Your task to perform on an android device: change notification settings in the gmail app Image 0: 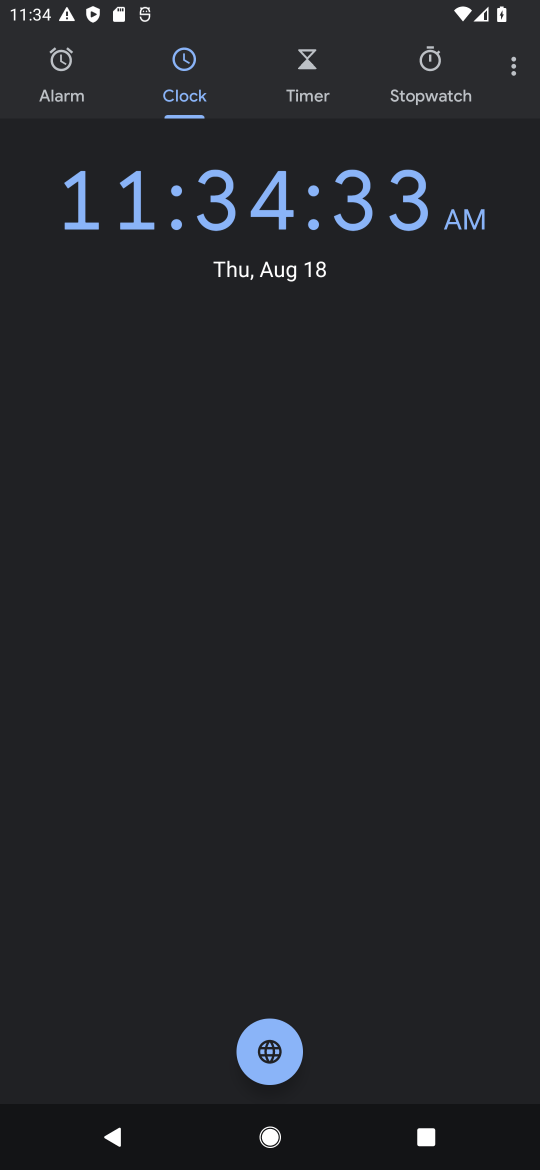
Step 0: press home button
Your task to perform on an android device: change notification settings in the gmail app Image 1: 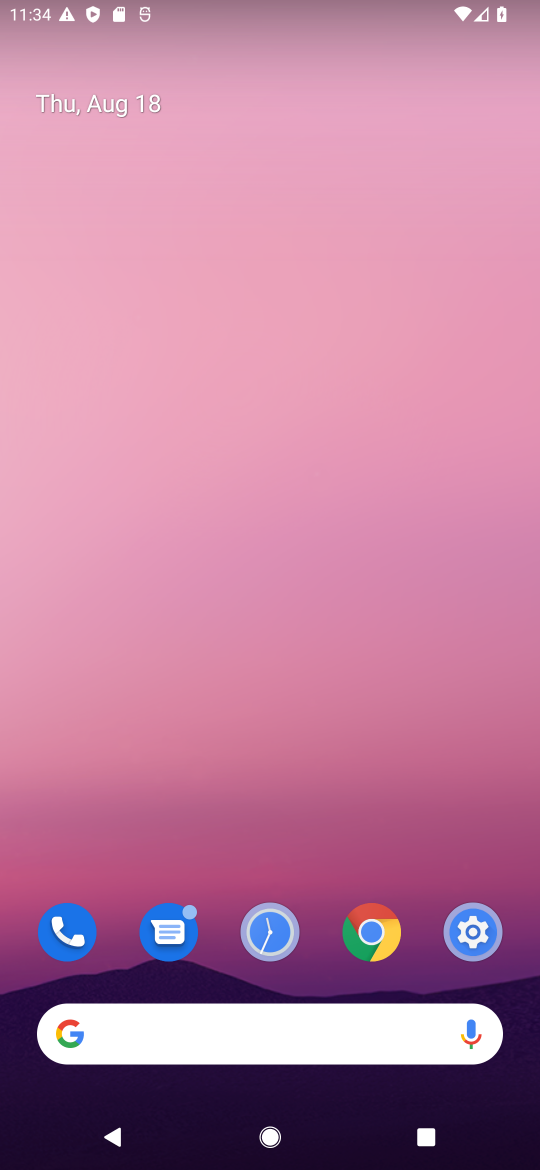
Step 1: drag from (193, 1095) to (166, 309)
Your task to perform on an android device: change notification settings in the gmail app Image 2: 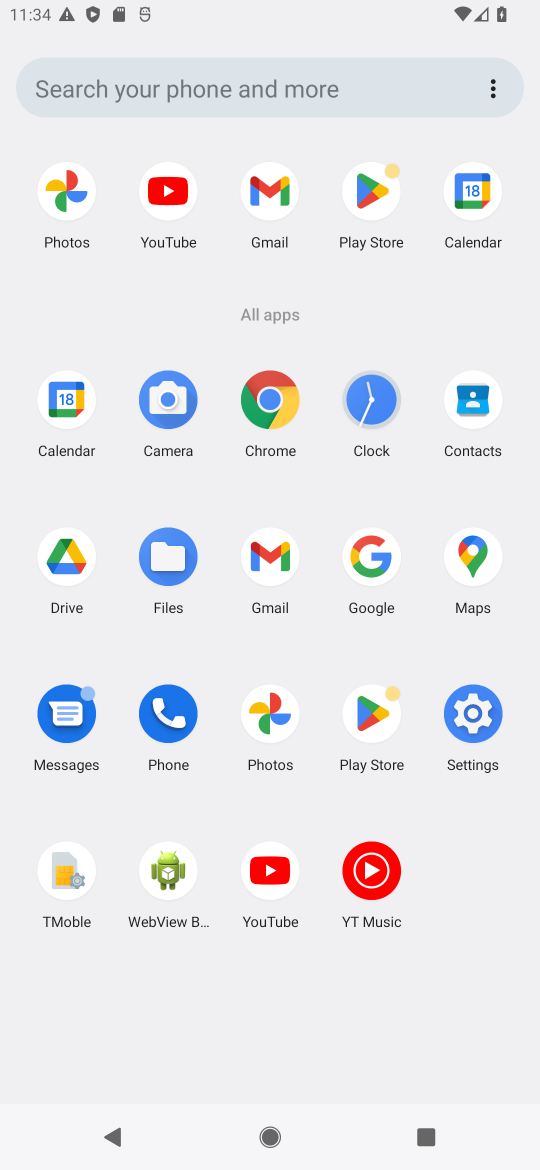
Step 2: click (258, 193)
Your task to perform on an android device: change notification settings in the gmail app Image 3: 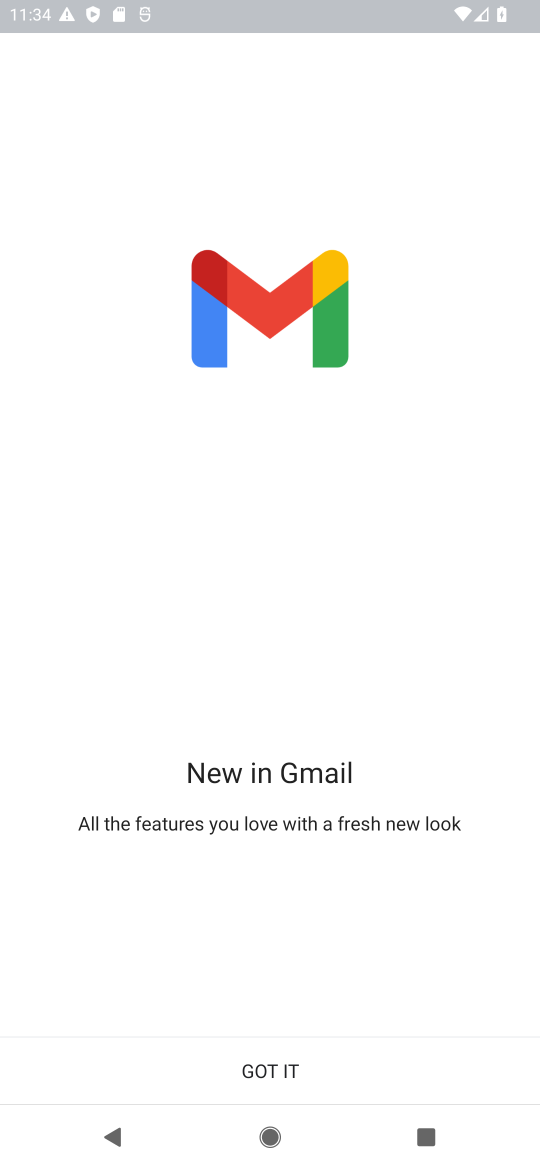
Step 3: click (291, 1082)
Your task to perform on an android device: change notification settings in the gmail app Image 4: 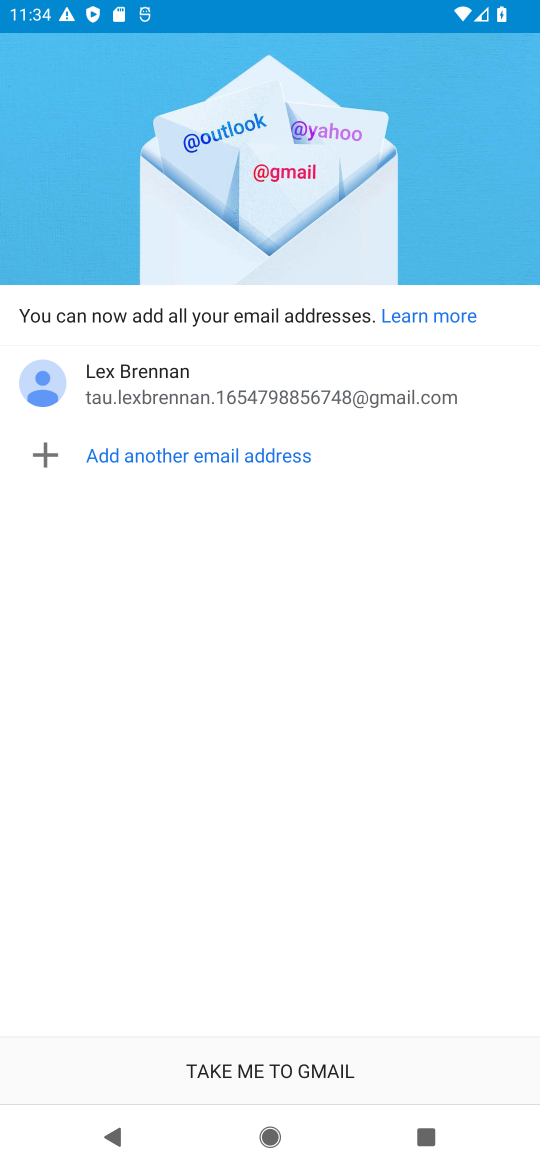
Step 4: click (257, 1062)
Your task to perform on an android device: change notification settings in the gmail app Image 5: 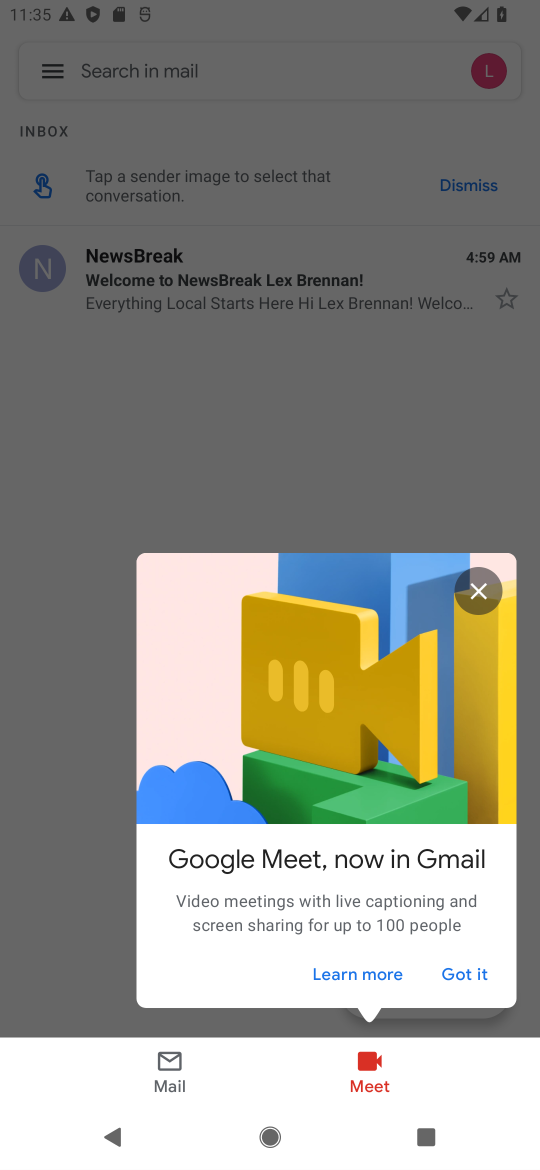
Step 5: click (472, 600)
Your task to perform on an android device: change notification settings in the gmail app Image 6: 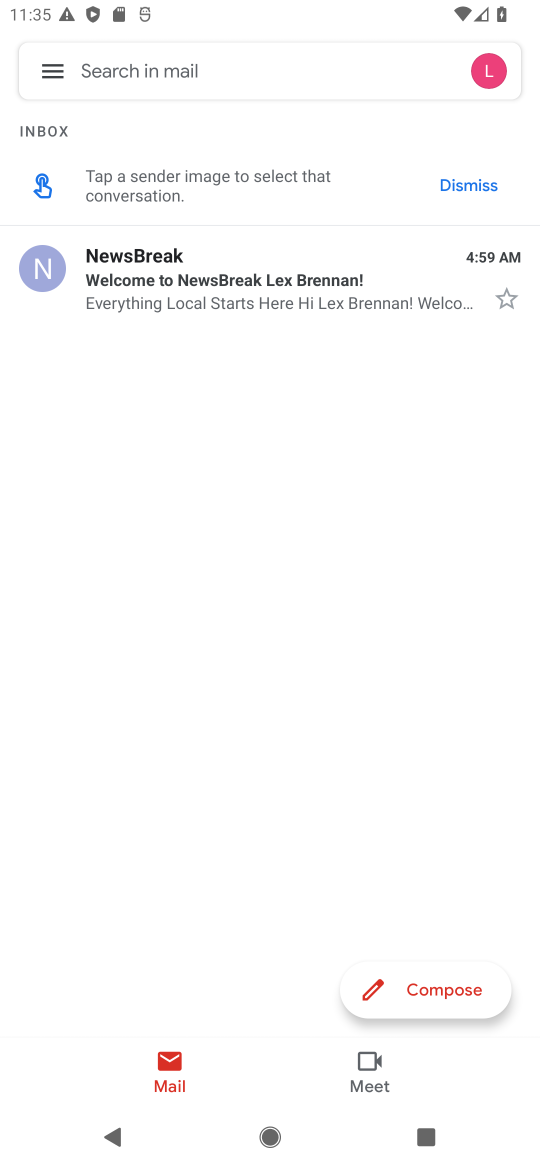
Step 6: click (47, 71)
Your task to perform on an android device: change notification settings in the gmail app Image 7: 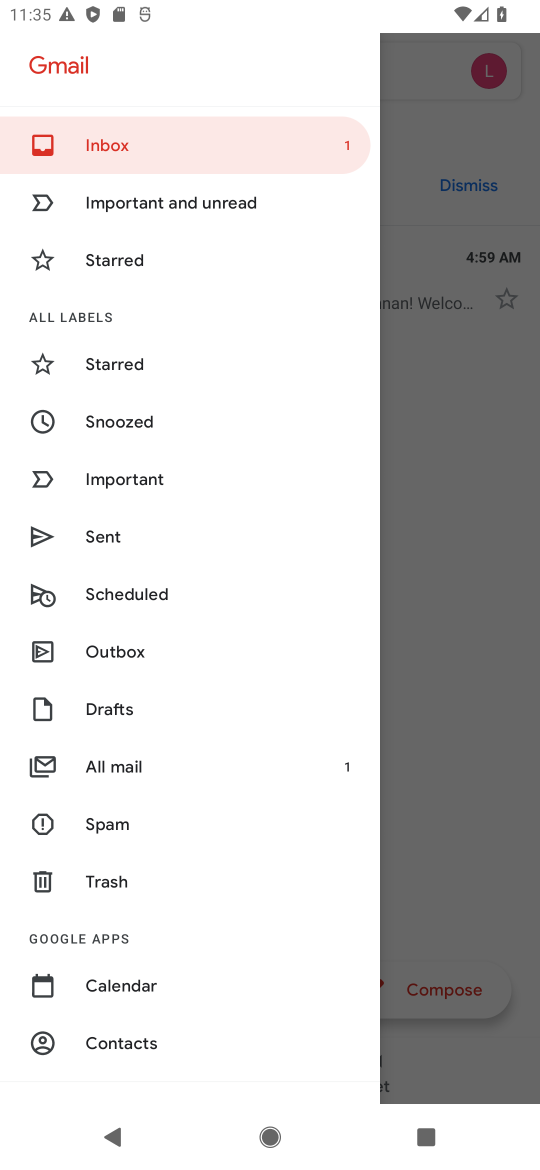
Step 7: drag from (197, 979) to (204, 386)
Your task to perform on an android device: change notification settings in the gmail app Image 8: 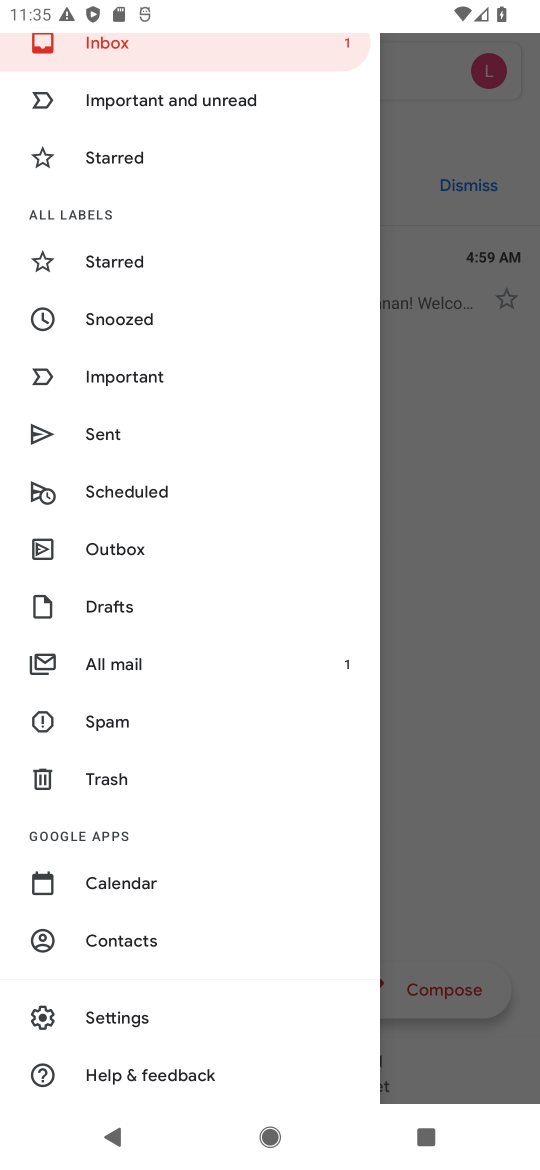
Step 8: click (133, 1010)
Your task to perform on an android device: change notification settings in the gmail app Image 9: 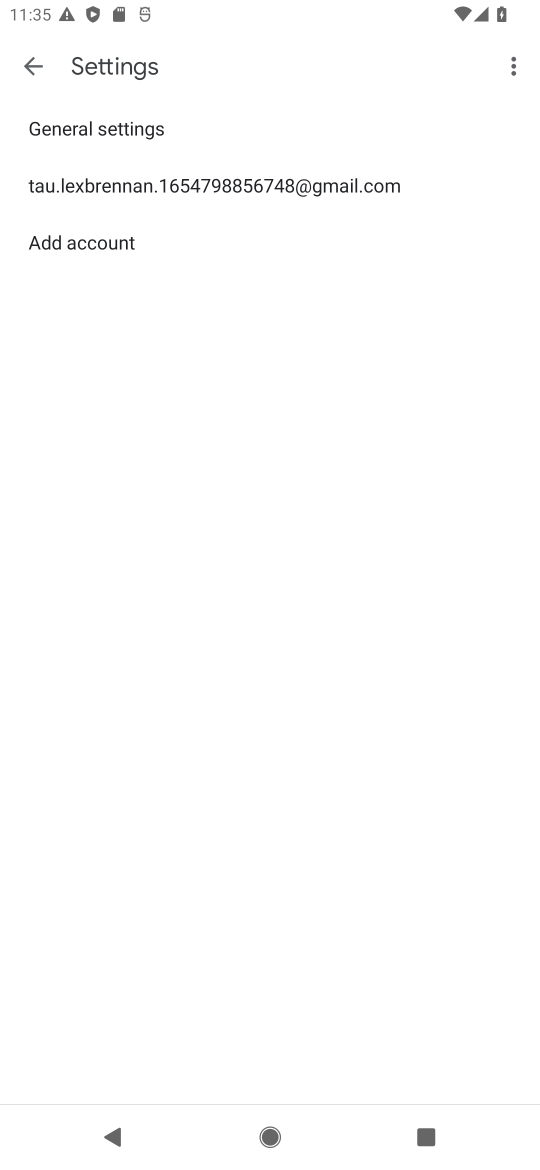
Step 9: click (67, 135)
Your task to perform on an android device: change notification settings in the gmail app Image 10: 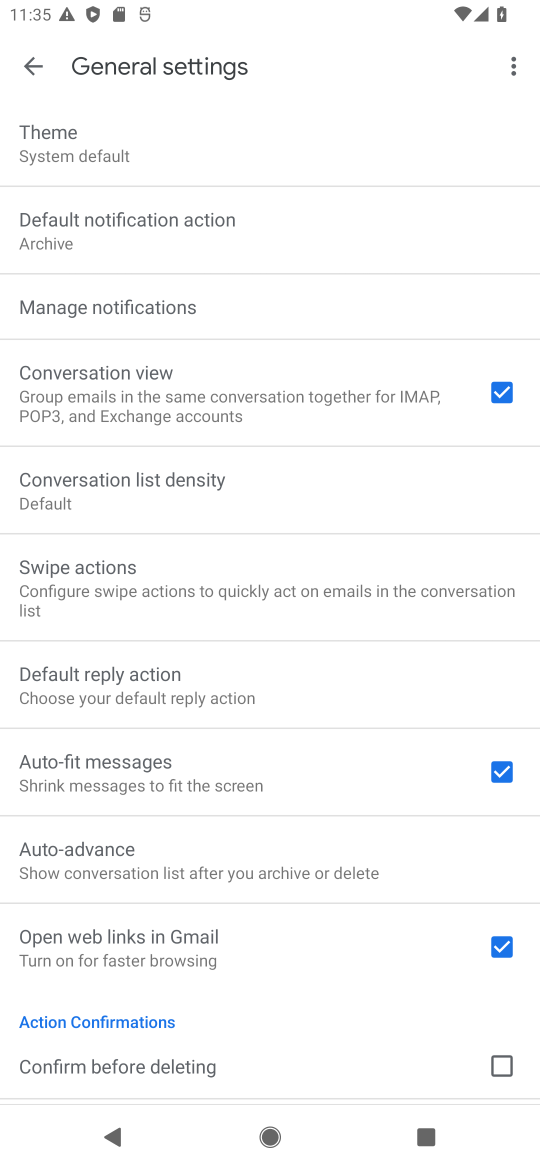
Step 10: click (77, 307)
Your task to perform on an android device: change notification settings in the gmail app Image 11: 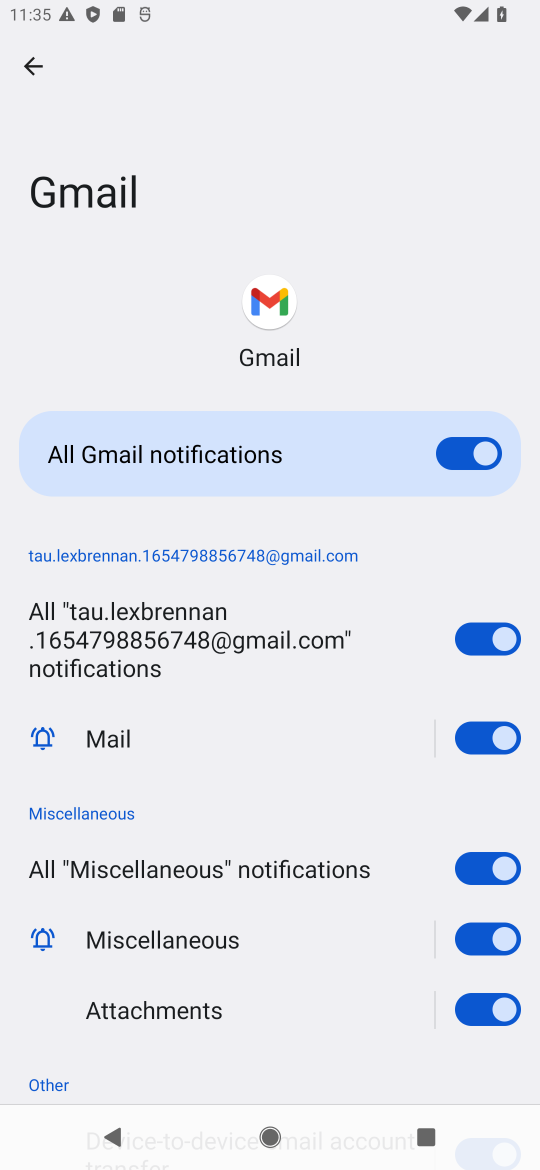
Step 11: click (474, 450)
Your task to perform on an android device: change notification settings in the gmail app Image 12: 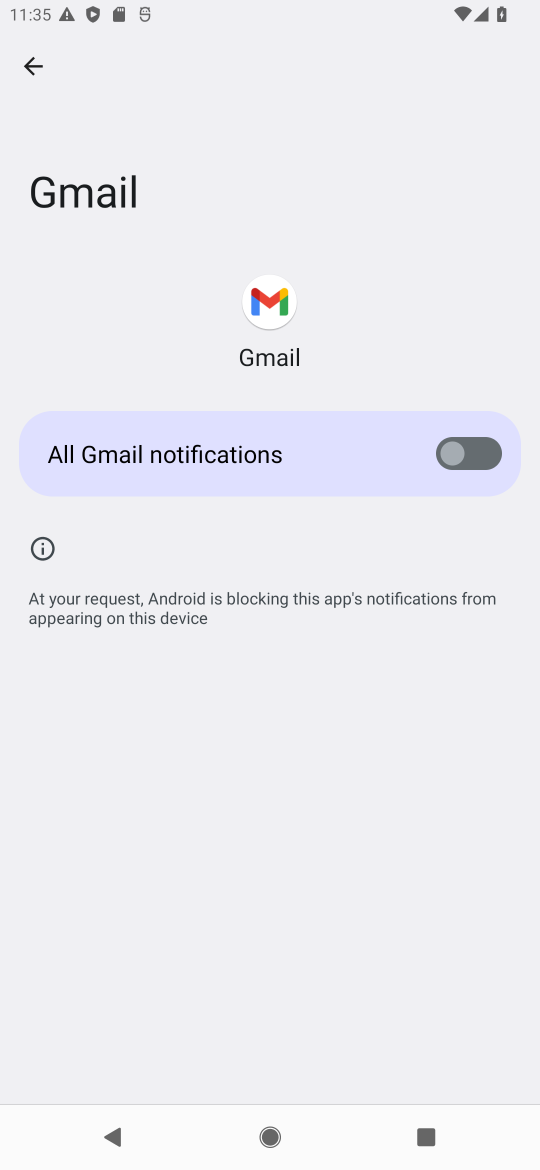
Step 12: task complete